Your task to perform on an android device: turn notification dots on Image 0: 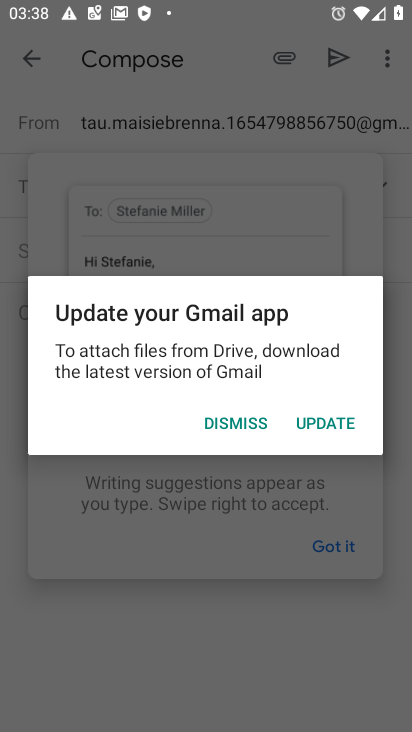
Step 0: press home button
Your task to perform on an android device: turn notification dots on Image 1: 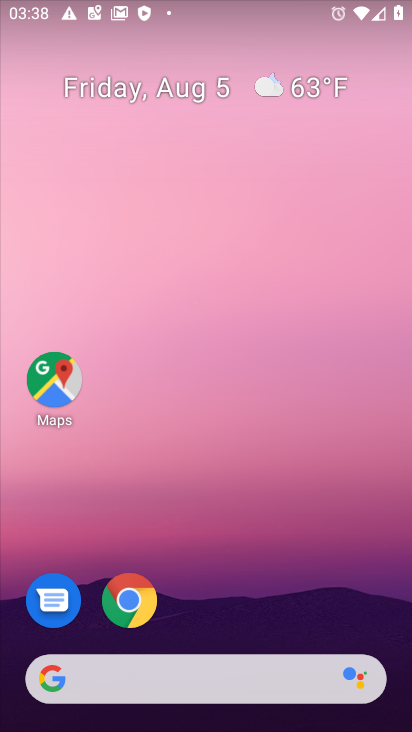
Step 1: drag from (186, 682) to (410, 198)
Your task to perform on an android device: turn notification dots on Image 2: 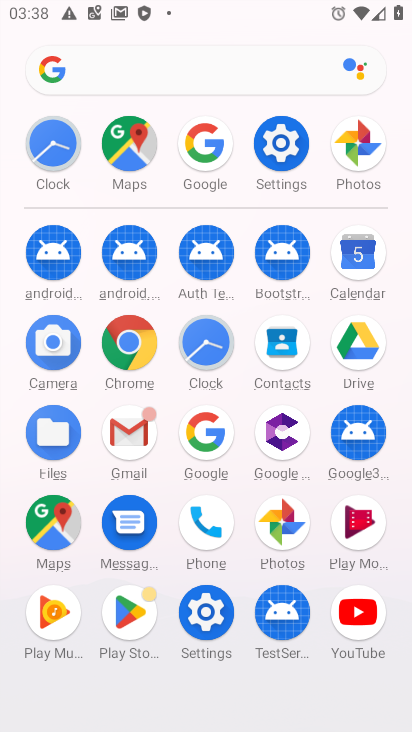
Step 2: click (281, 143)
Your task to perform on an android device: turn notification dots on Image 3: 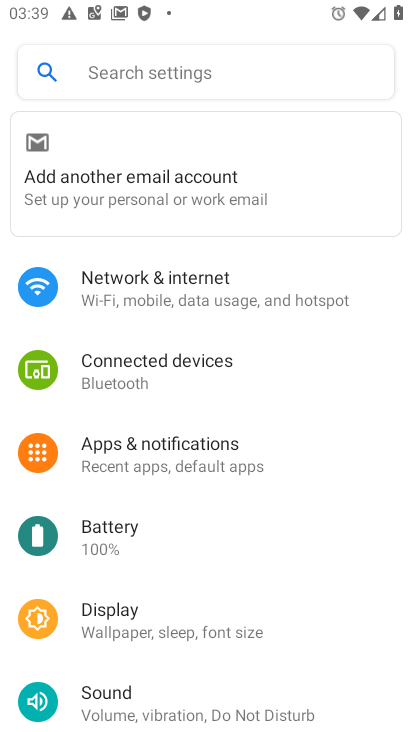
Step 3: click (135, 451)
Your task to perform on an android device: turn notification dots on Image 4: 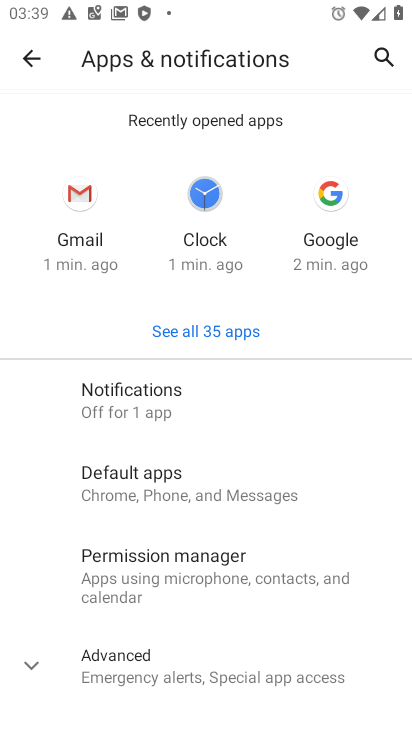
Step 4: click (143, 402)
Your task to perform on an android device: turn notification dots on Image 5: 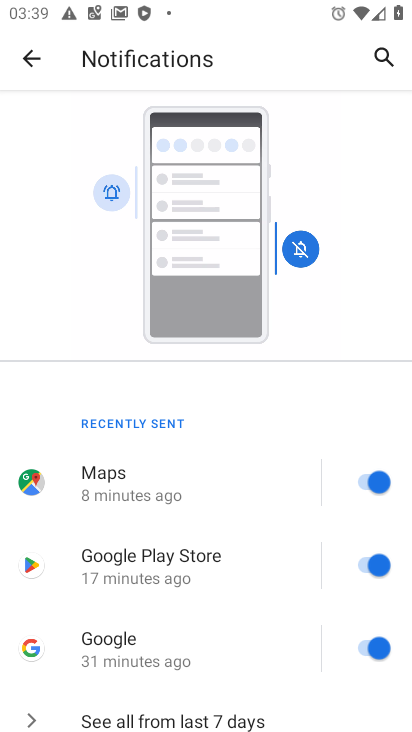
Step 5: drag from (159, 625) to (201, 456)
Your task to perform on an android device: turn notification dots on Image 6: 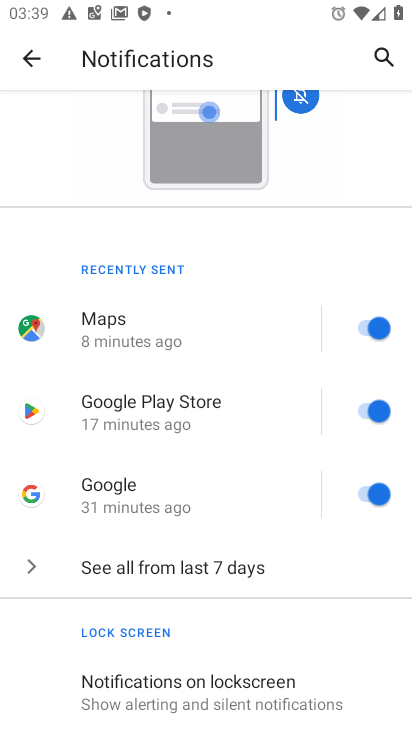
Step 6: drag from (188, 639) to (232, 455)
Your task to perform on an android device: turn notification dots on Image 7: 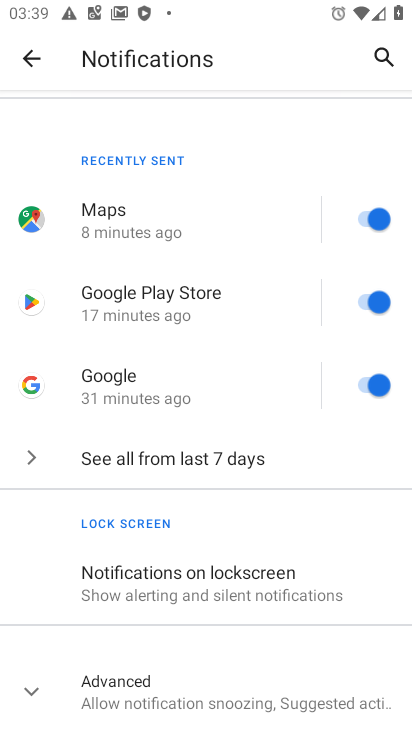
Step 7: click (192, 701)
Your task to perform on an android device: turn notification dots on Image 8: 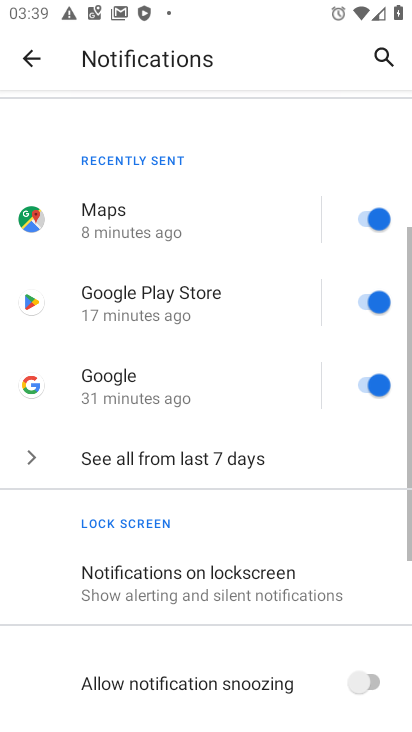
Step 8: task complete